Your task to perform on an android device: snooze an email in the gmail app Image 0: 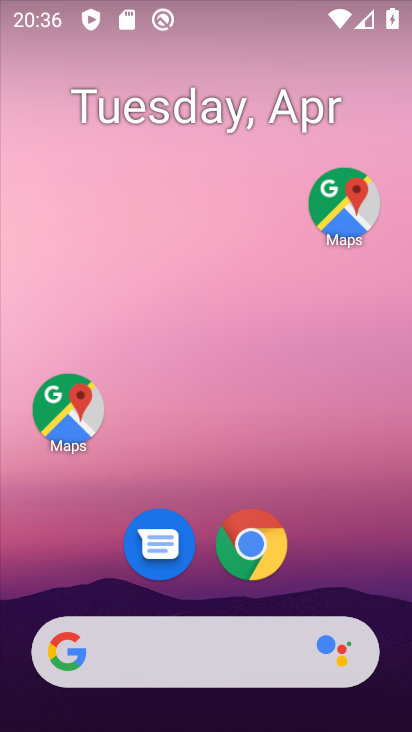
Step 0: drag from (157, 644) to (268, 108)
Your task to perform on an android device: snooze an email in the gmail app Image 1: 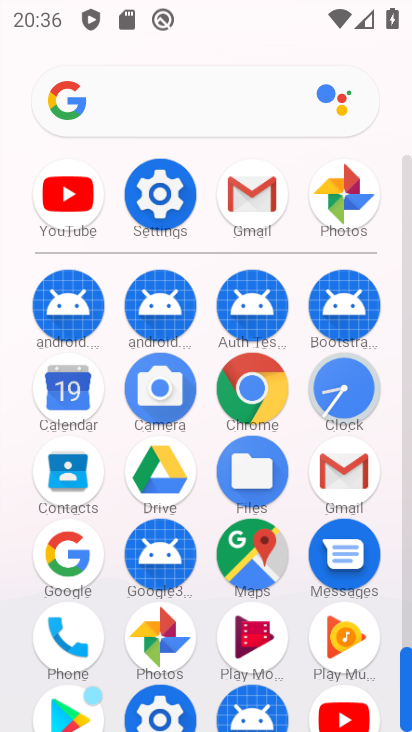
Step 1: click (249, 202)
Your task to perform on an android device: snooze an email in the gmail app Image 2: 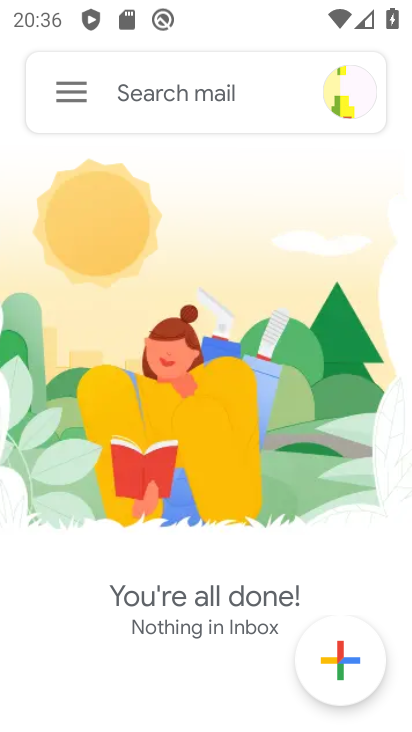
Step 2: task complete